Your task to perform on an android device: Open Youtube and go to "Your channel" Image 0: 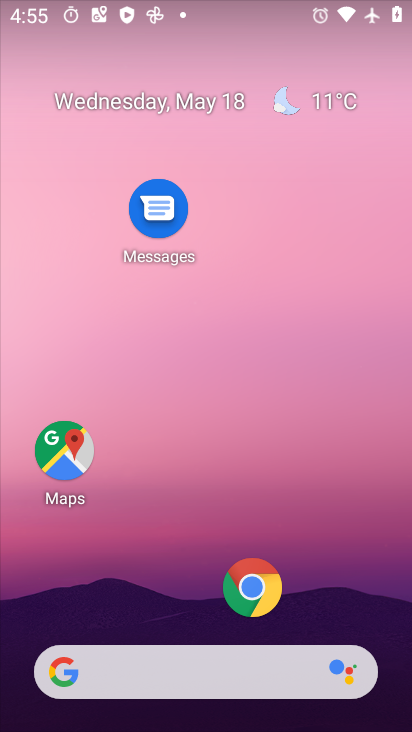
Step 0: drag from (282, 612) to (349, 145)
Your task to perform on an android device: Open Youtube and go to "Your channel" Image 1: 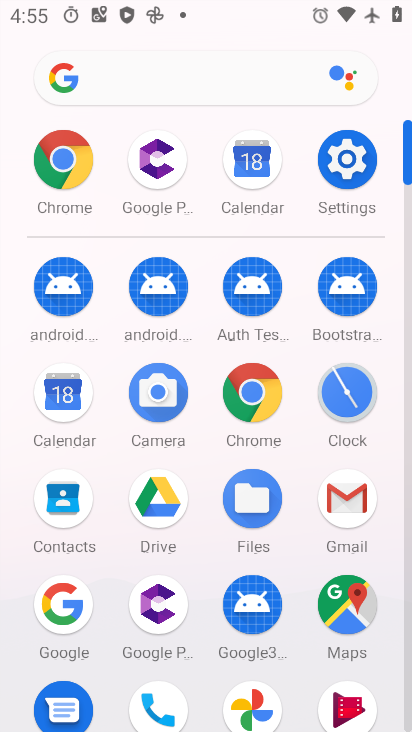
Step 1: drag from (310, 392) to (309, 94)
Your task to perform on an android device: Open Youtube and go to "Your channel" Image 2: 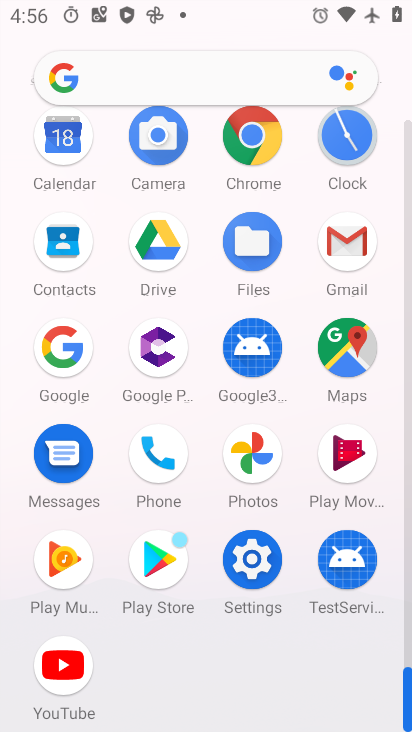
Step 2: click (79, 664)
Your task to perform on an android device: Open Youtube and go to "Your channel" Image 3: 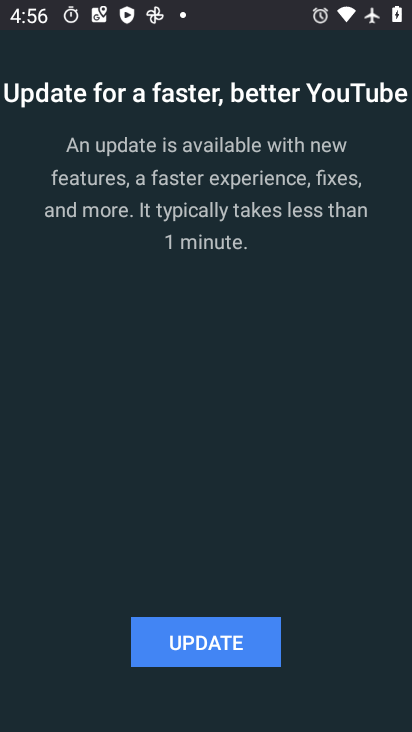
Step 3: task complete